Your task to perform on an android device: make emails show in primary in the gmail app Image 0: 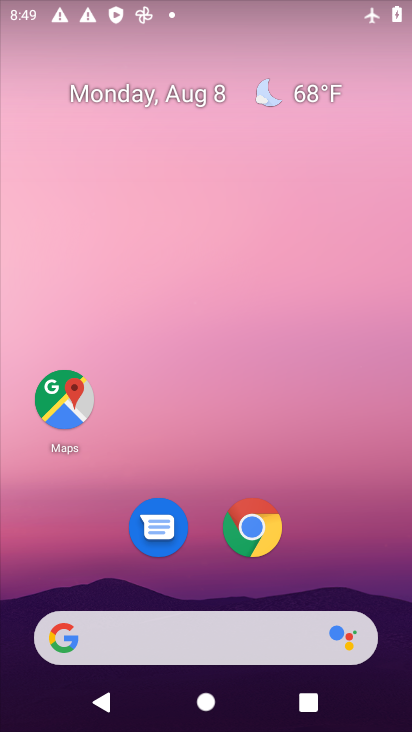
Step 0: drag from (383, 663) to (342, 196)
Your task to perform on an android device: make emails show in primary in the gmail app Image 1: 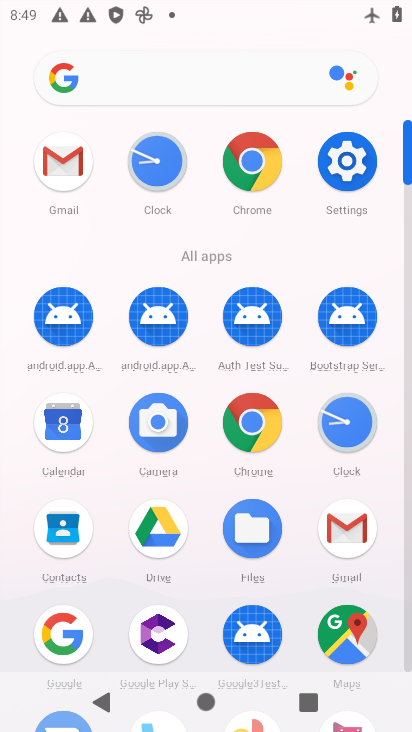
Step 1: click (345, 541)
Your task to perform on an android device: make emails show in primary in the gmail app Image 2: 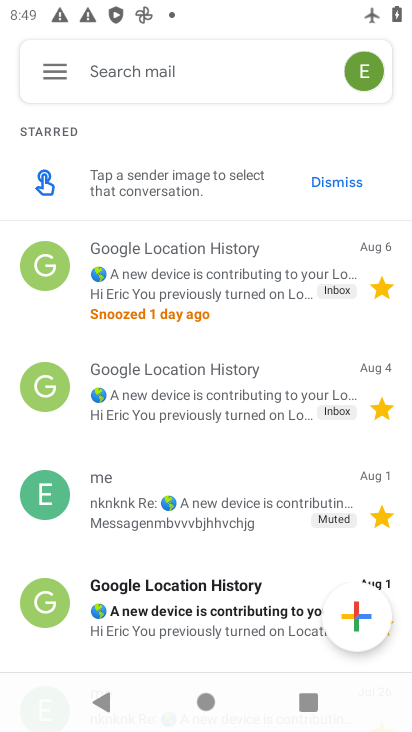
Step 2: click (56, 67)
Your task to perform on an android device: make emails show in primary in the gmail app Image 3: 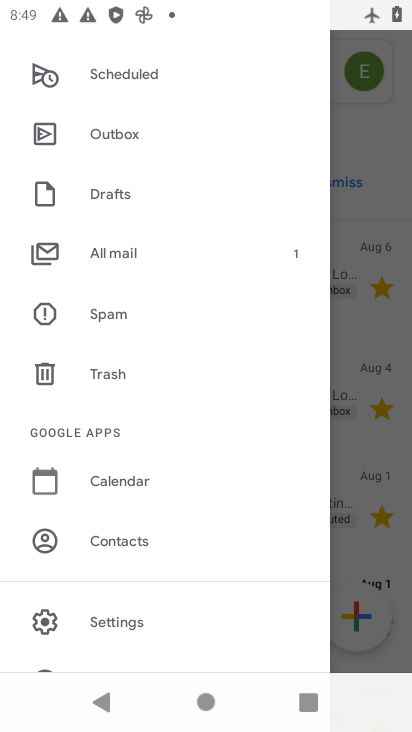
Step 3: drag from (198, 630) to (204, 202)
Your task to perform on an android device: make emails show in primary in the gmail app Image 4: 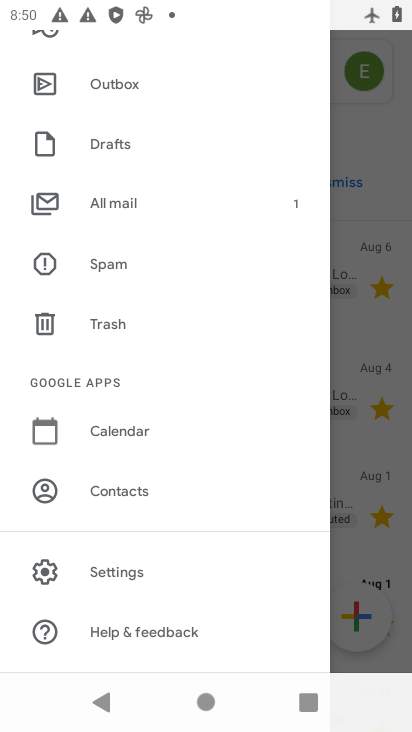
Step 4: click (90, 574)
Your task to perform on an android device: make emails show in primary in the gmail app Image 5: 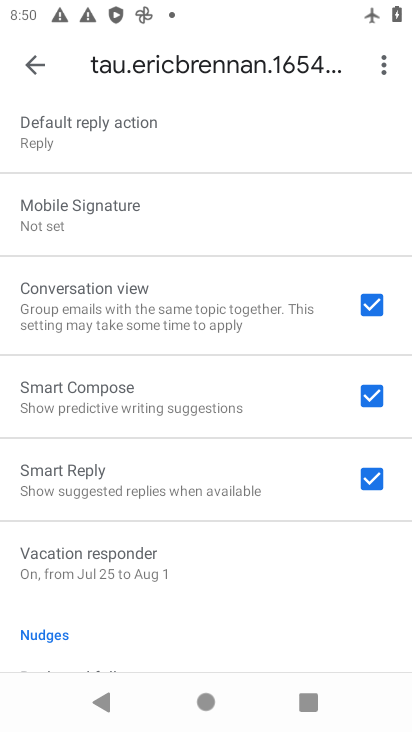
Step 5: drag from (187, 163) to (189, 570)
Your task to perform on an android device: make emails show in primary in the gmail app Image 6: 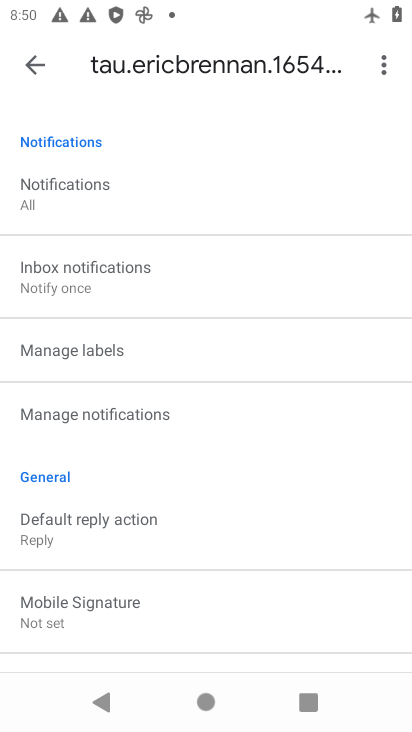
Step 6: drag from (139, 234) to (143, 518)
Your task to perform on an android device: make emails show in primary in the gmail app Image 7: 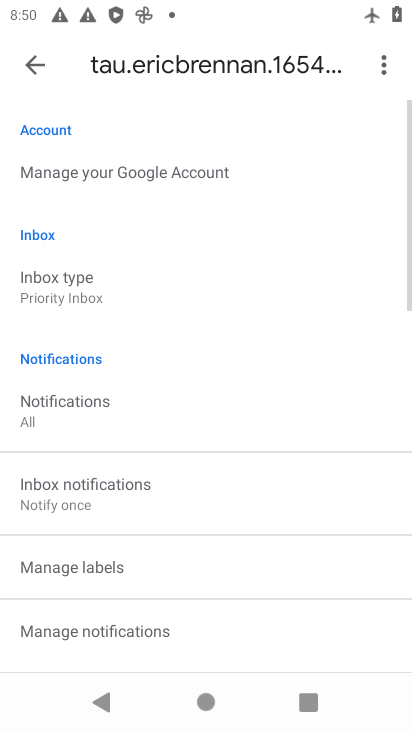
Step 7: click (55, 285)
Your task to perform on an android device: make emails show in primary in the gmail app Image 8: 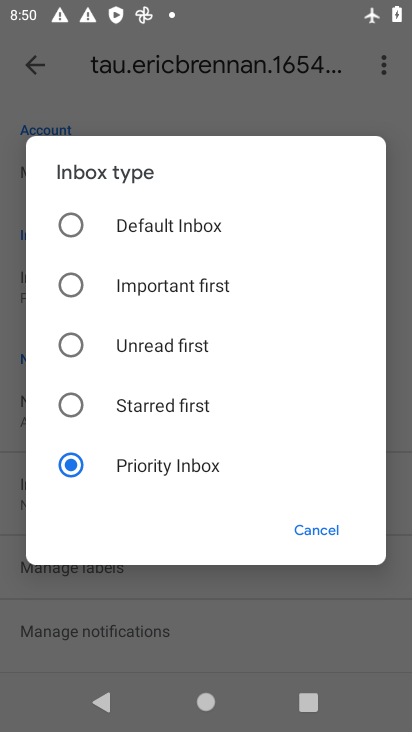
Step 8: click (77, 218)
Your task to perform on an android device: make emails show in primary in the gmail app Image 9: 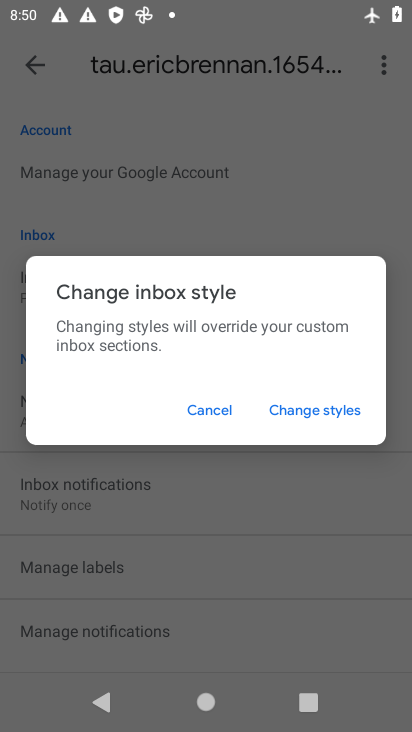
Step 9: click (216, 409)
Your task to perform on an android device: make emails show in primary in the gmail app Image 10: 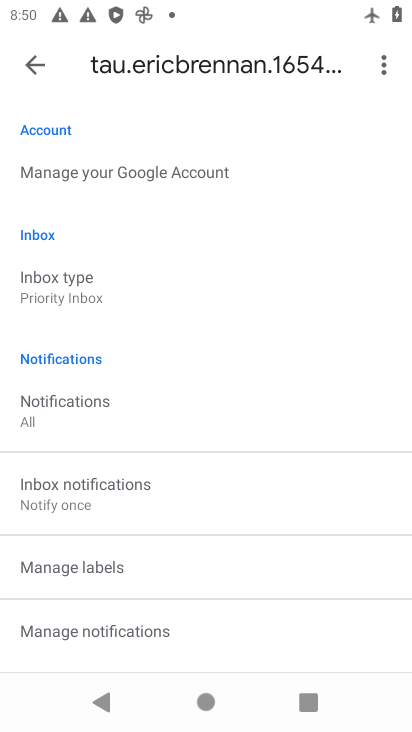
Step 10: drag from (319, 614) to (303, 269)
Your task to perform on an android device: make emails show in primary in the gmail app Image 11: 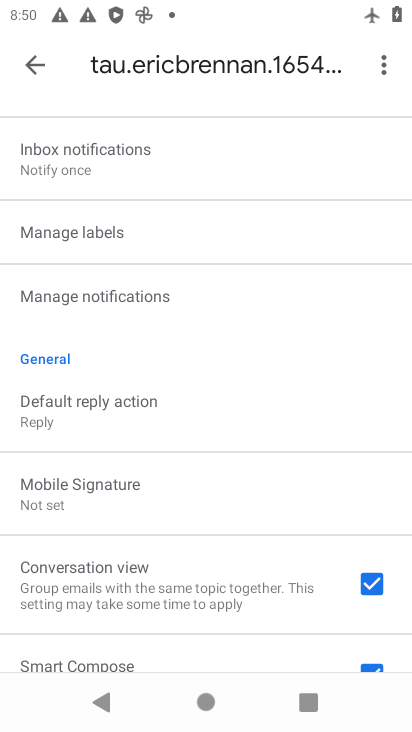
Step 11: drag from (216, 167) to (267, 654)
Your task to perform on an android device: make emails show in primary in the gmail app Image 12: 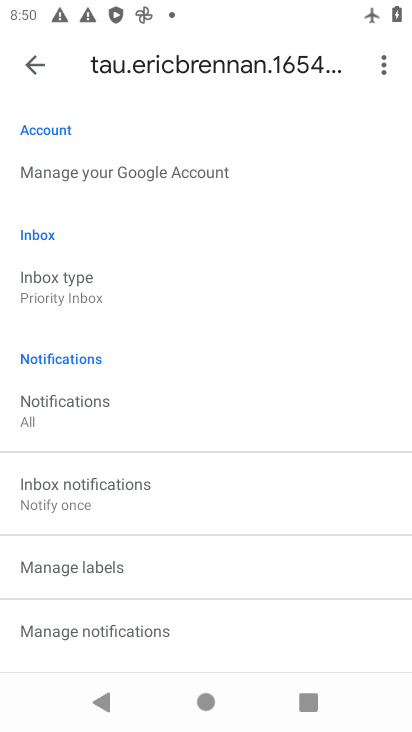
Step 12: click (51, 276)
Your task to perform on an android device: make emails show in primary in the gmail app Image 13: 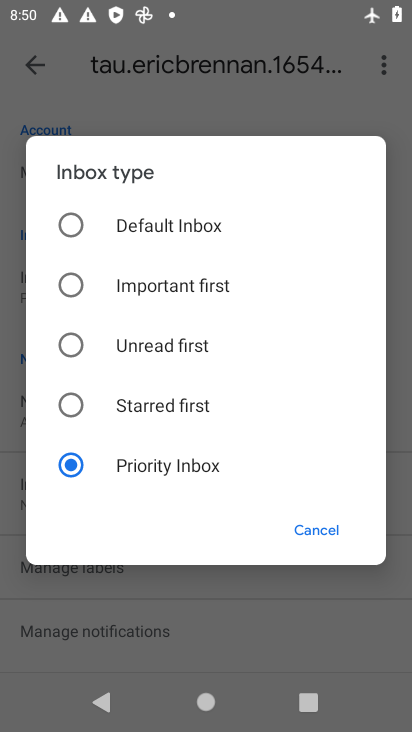
Step 13: click (72, 219)
Your task to perform on an android device: make emails show in primary in the gmail app Image 14: 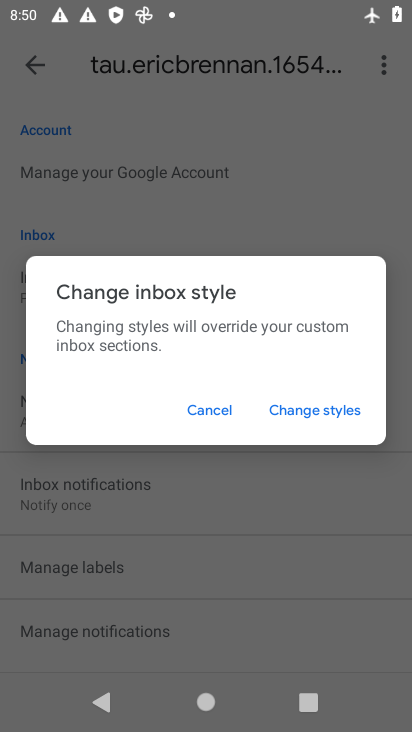
Step 14: click (302, 409)
Your task to perform on an android device: make emails show in primary in the gmail app Image 15: 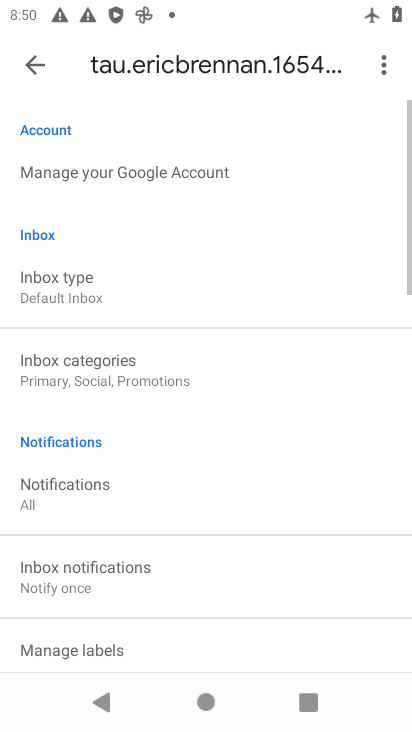
Step 15: click (51, 364)
Your task to perform on an android device: make emails show in primary in the gmail app Image 16: 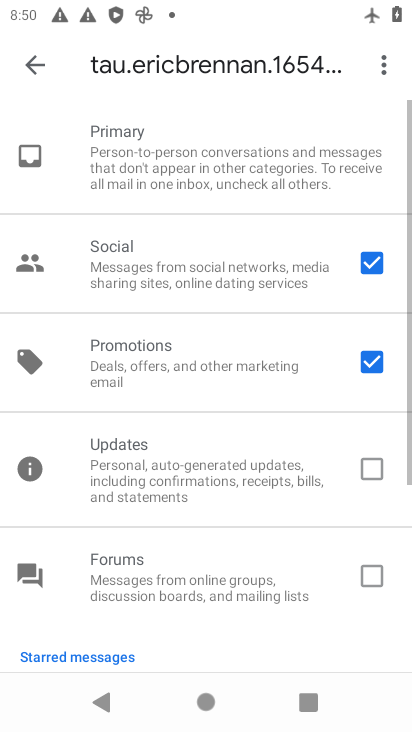
Step 16: click (367, 269)
Your task to perform on an android device: make emails show in primary in the gmail app Image 17: 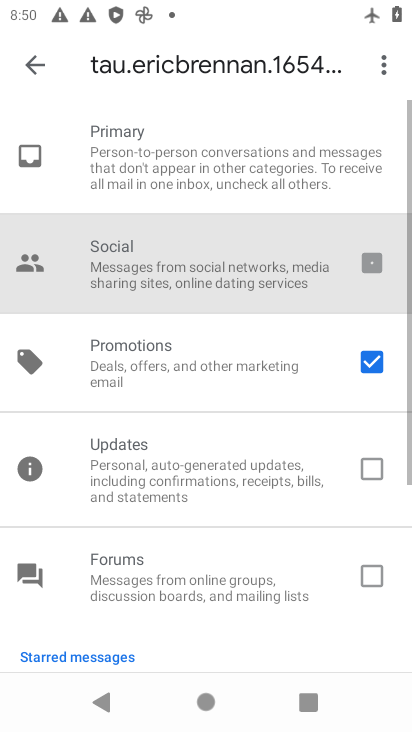
Step 17: click (374, 356)
Your task to perform on an android device: make emails show in primary in the gmail app Image 18: 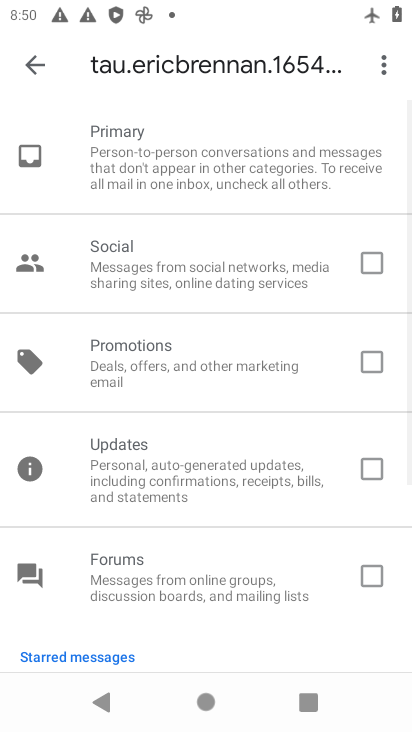
Step 18: click (38, 62)
Your task to perform on an android device: make emails show in primary in the gmail app Image 19: 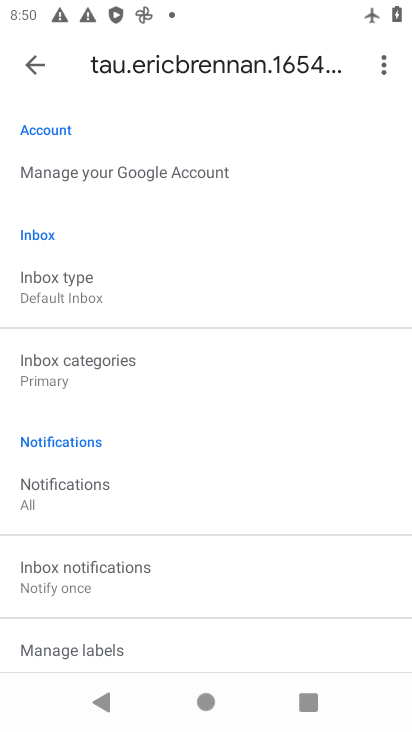
Step 19: task complete